Your task to perform on an android device: uninstall "Booking.com: Hotels and more" Image 0: 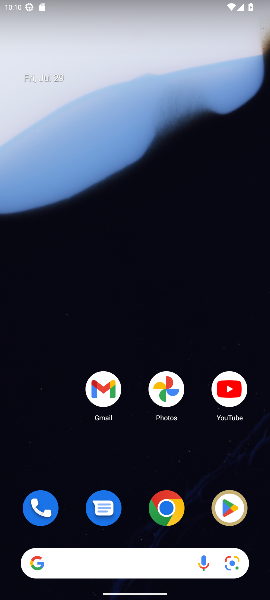
Step 0: drag from (125, 515) to (174, 14)
Your task to perform on an android device: uninstall "Booking.com: Hotels and more" Image 1: 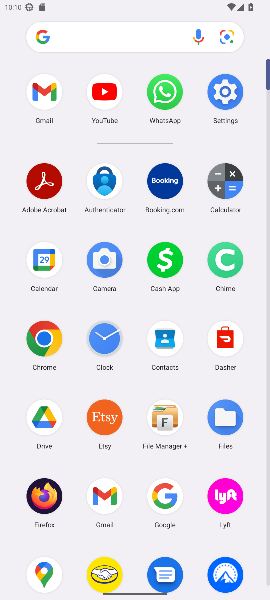
Step 1: drag from (173, 484) to (206, 104)
Your task to perform on an android device: uninstall "Booking.com: Hotels and more" Image 2: 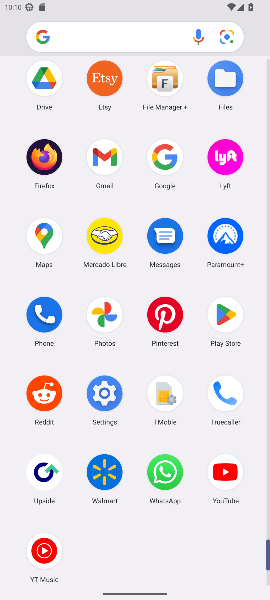
Step 2: drag from (134, 173) to (106, 588)
Your task to perform on an android device: uninstall "Booking.com: Hotels and more" Image 3: 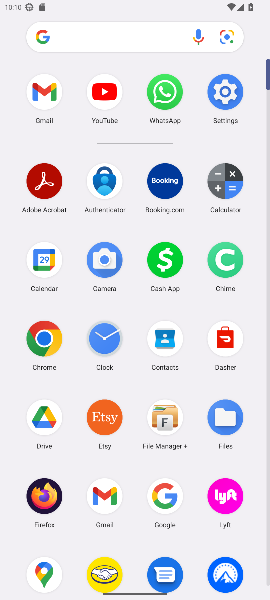
Step 3: drag from (129, 474) to (133, 344)
Your task to perform on an android device: uninstall "Booking.com: Hotels and more" Image 4: 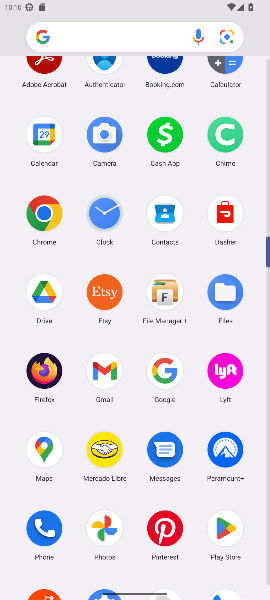
Step 4: click (222, 516)
Your task to perform on an android device: uninstall "Booking.com: Hotels and more" Image 5: 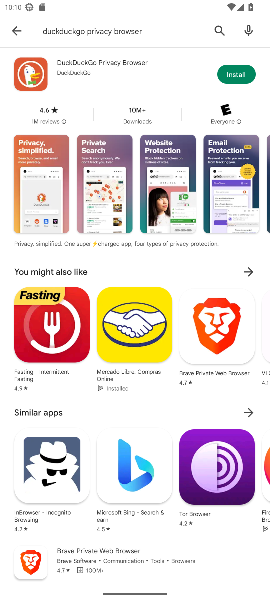
Step 5: click (214, 26)
Your task to perform on an android device: uninstall "Booking.com: Hotels and more" Image 6: 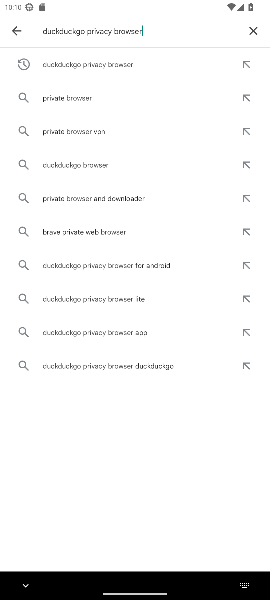
Step 6: click (248, 30)
Your task to perform on an android device: uninstall "Booking.com: Hotels and more" Image 7: 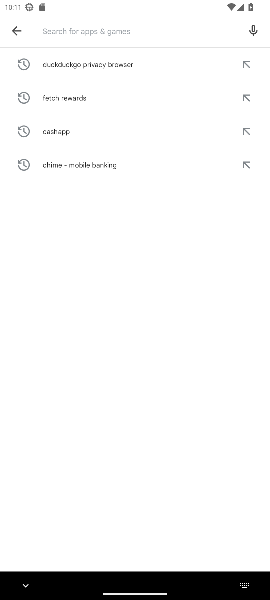
Step 7: type "booking.com: hotels and more"
Your task to perform on an android device: uninstall "Booking.com: Hotels and more" Image 8: 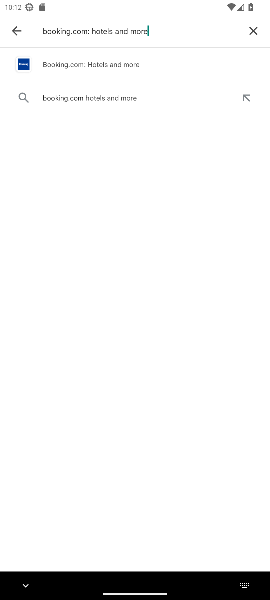
Step 8: click (149, 66)
Your task to perform on an android device: uninstall "Booking.com: Hotels and more" Image 9: 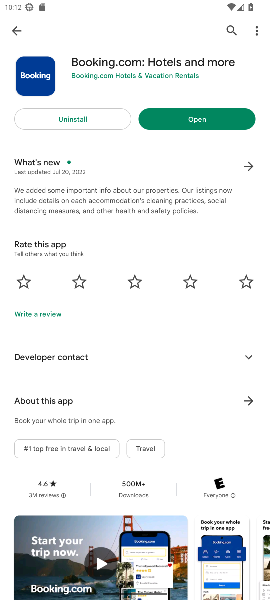
Step 9: click (83, 121)
Your task to perform on an android device: uninstall "Booking.com: Hotels and more" Image 10: 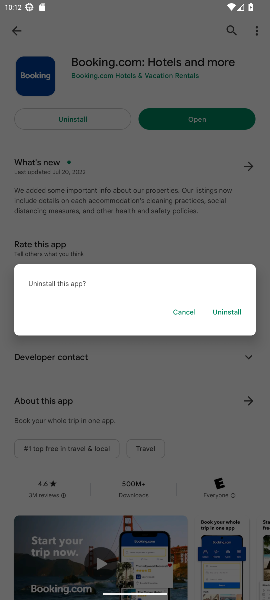
Step 10: click (223, 309)
Your task to perform on an android device: uninstall "Booking.com: Hotels and more" Image 11: 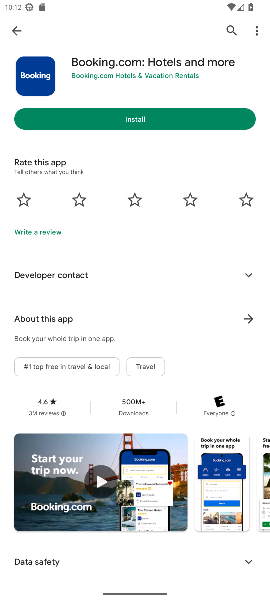
Step 11: task complete